Your task to perform on an android device: toggle airplane mode Image 0: 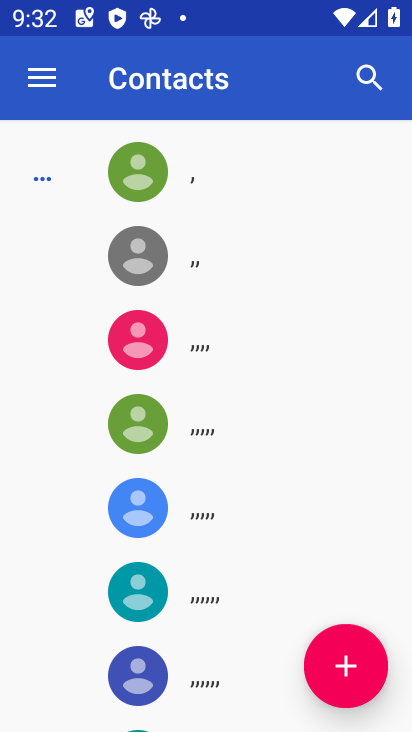
Step 0: press home button
Your task to perform on an android device: toggle airplane mode Image 1: 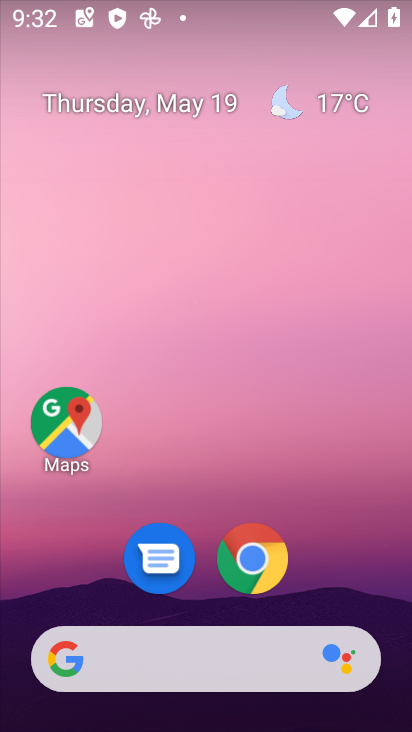
Step 1: drag from (217, 727) to (218, 198)
Your task to perform on an android device: toggle airplane mode Image 2: 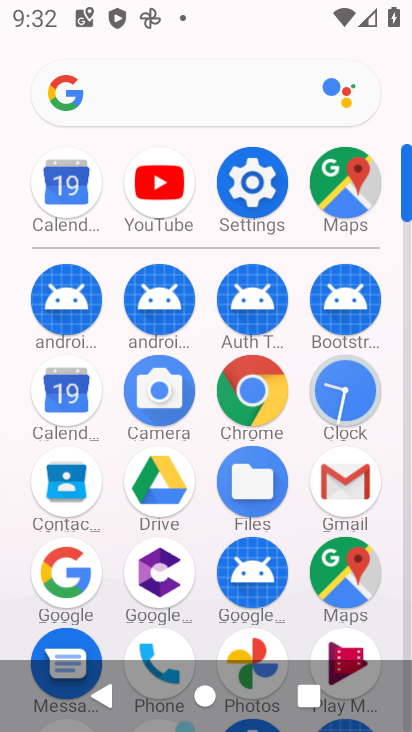
Step 2: click (257, 183)
Your task to perform on an android device: toggle airplane mode Image 3: 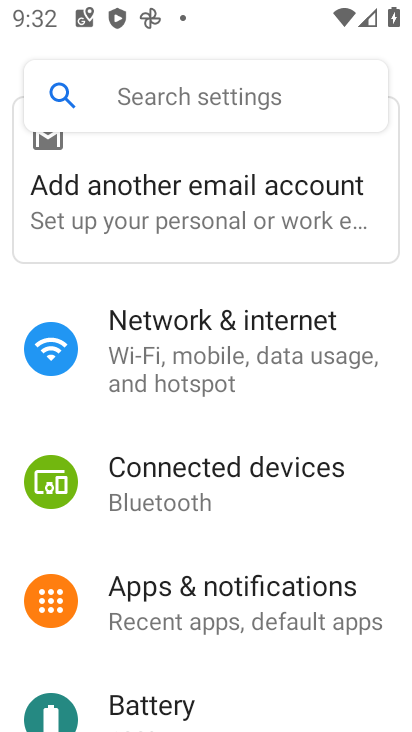
Step 3: click (205, 341)
Your task to perform on an android device: toggle airplane mode Image 4: 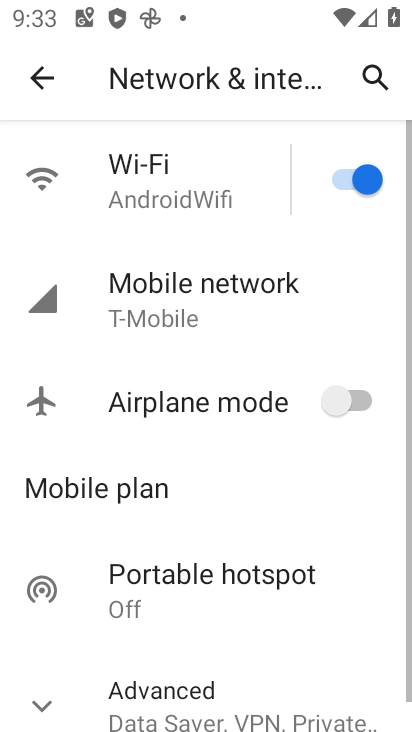
Step 4: click (363, 403)
Your task to perform on an android device: toggle airplane mode Image 5: 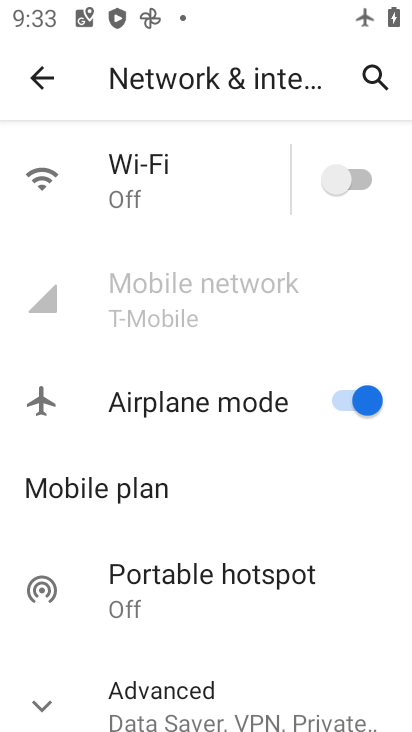
Step 5: task complete